Your task to perform on an android device: turn on wifi Image 0: 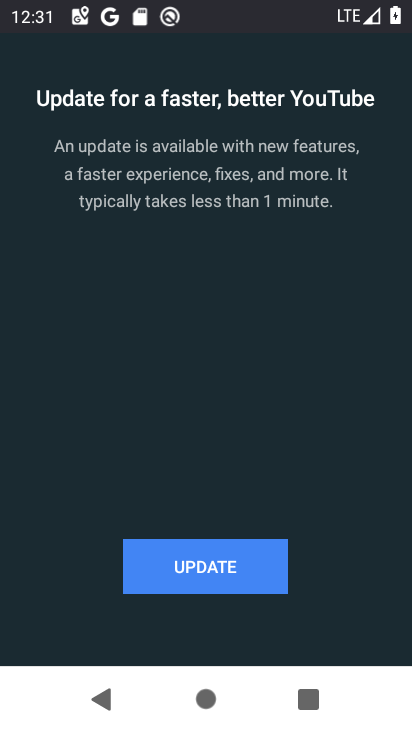
Step 0: drag from (233, 25) to (212, 360)
Your task to perform on an android device: turn on wifi Image 1: 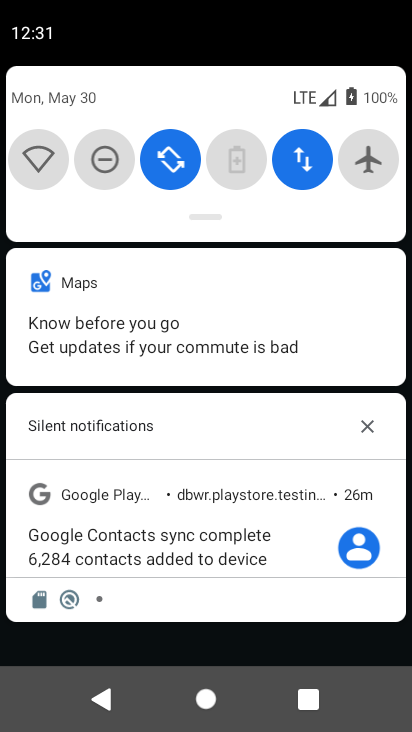
Step 1: click (41, 155)
Your task to perform on an android device: turn on wifi Image 2: 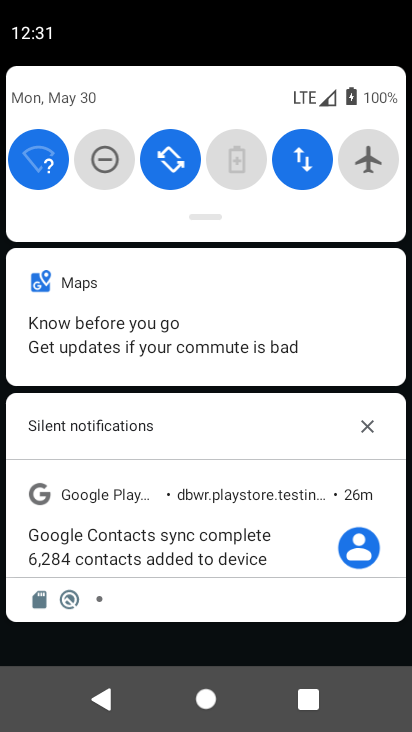
Step 2: task complete